Your task to perform on an android device: turn off data saver in the chrome app Image 0: 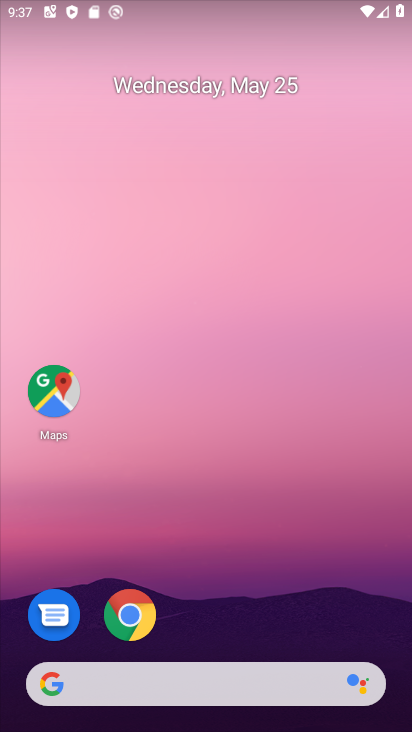
Step 0: click (137, 611)
Your task to perform on an android device: turn off data saver in the chrome app Image 1: 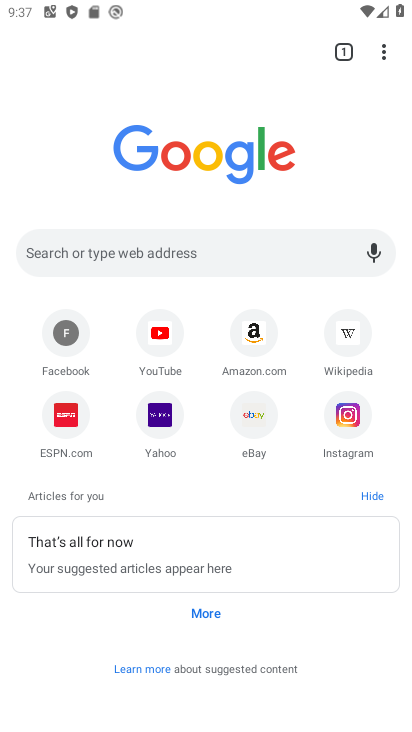
Step 1: click (386, 53)
Your task to perform on an android device: turn off data saver in the chrome app Image 2: 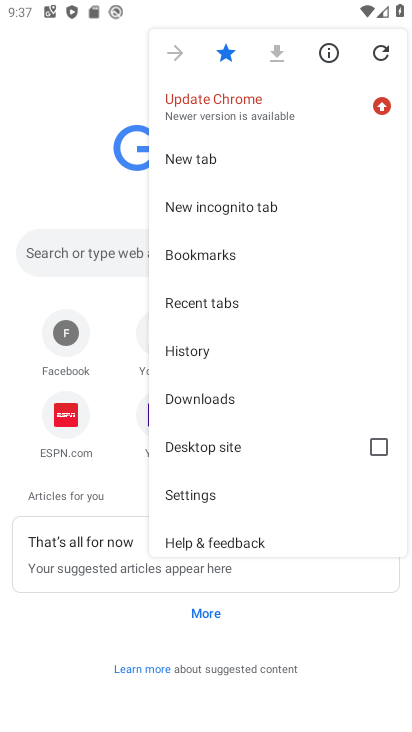
Step 2: click (245, 492)
Your task to perform on an android device: turn off data saver in the chrome app Image 3: 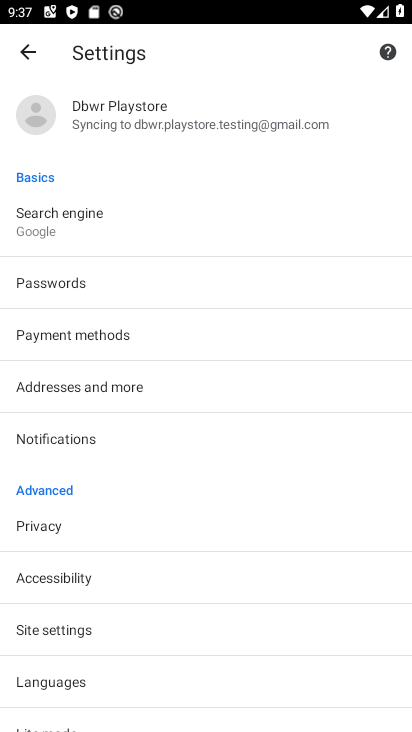
Step 3: drag from (207, 635) to (213, 411)
Your task to perform on an android device: turn off data saver in the chrome app Image 4: 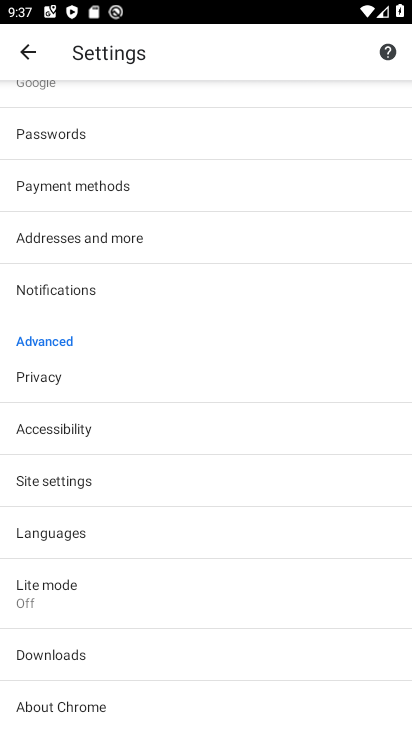
Step 4: click (137, 587)
Your task to perform on an android device: turn off data saver in the chrome app Image 5: 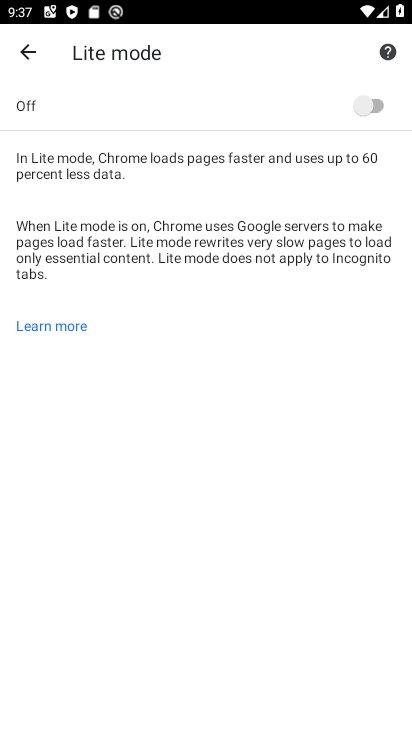
Step 5: task complete